Your task to perform on an android device: check battery use Image 0: 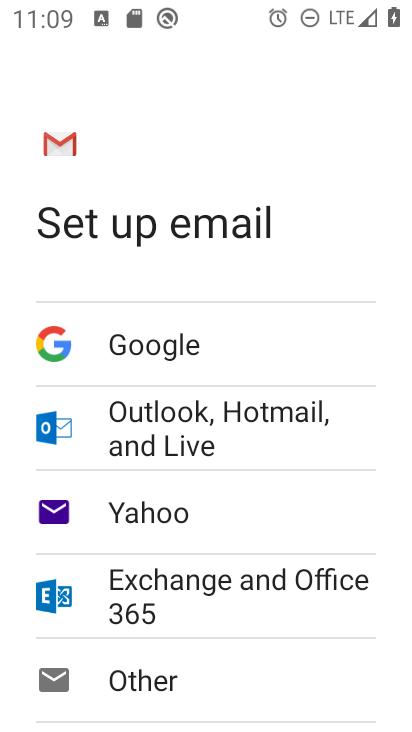
Step 0: press home button
Your task to perform on an android device: check battery use Image 1: 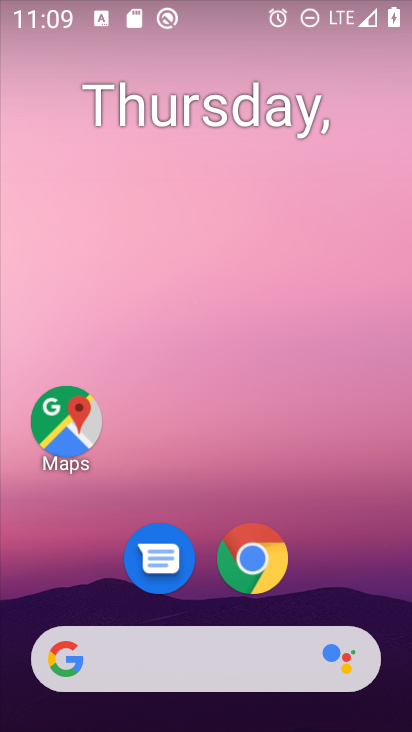
Step 1: drag from (393, 627) to (314, 114)
Your task to perform on an android device: check battery use Image 2: 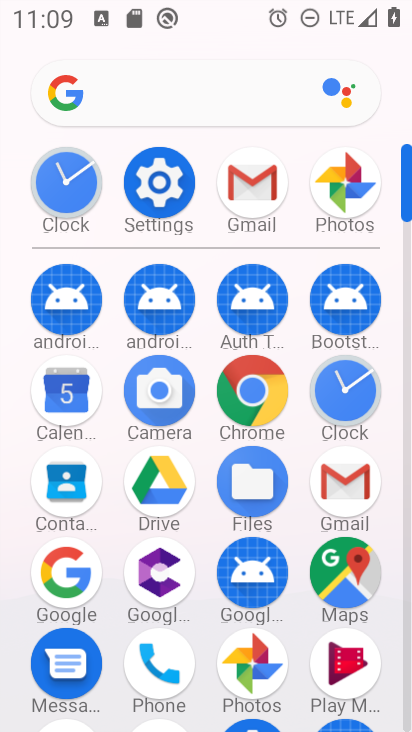
Step 2: click (407, 677)
Your task to perform on an android device: check battery use Image 3: 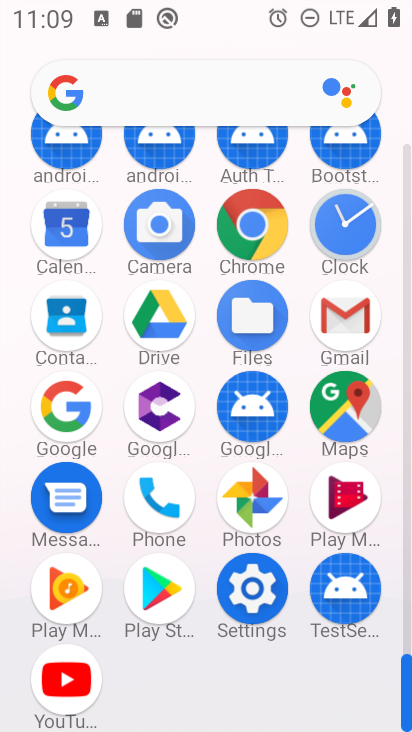
Step 3: click (254, 592)
Your task to perform on an android device: check battery use Image 4: 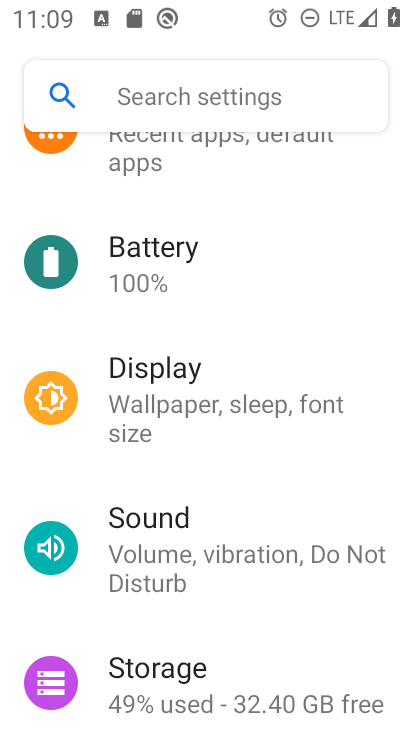
Step 4: click (119, 244)
Your task to perform on an android device: check battery use Image 5: 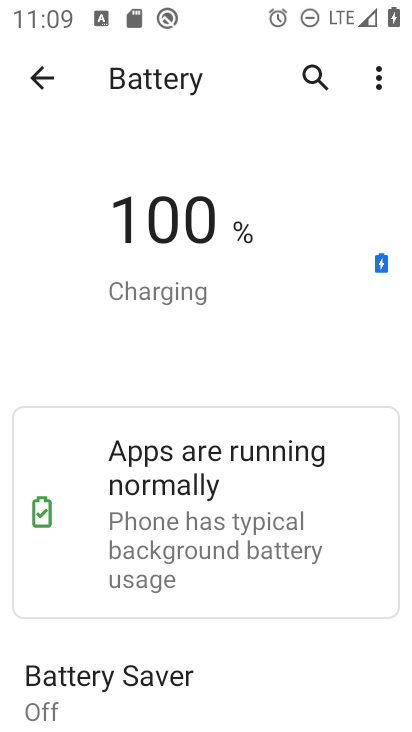
Step 5: task complete